Your task to perform on an android device: find snoozed emails in the gmail app Image 0: 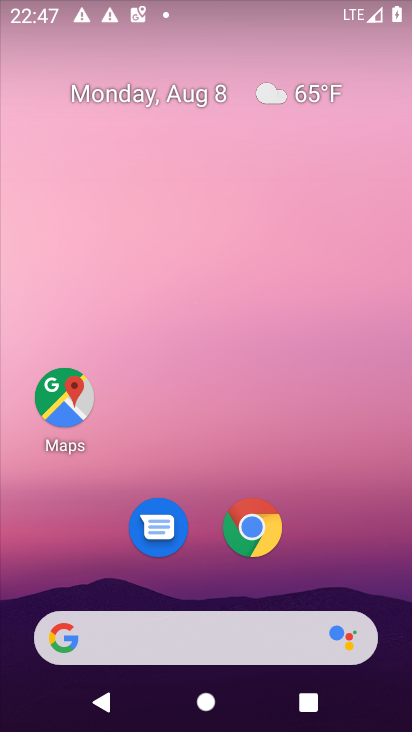
Step 0: drag from (394, 705) to (357, 208)
Your task to perform on an android device: find snoozed emails in the gmail app Image 1: 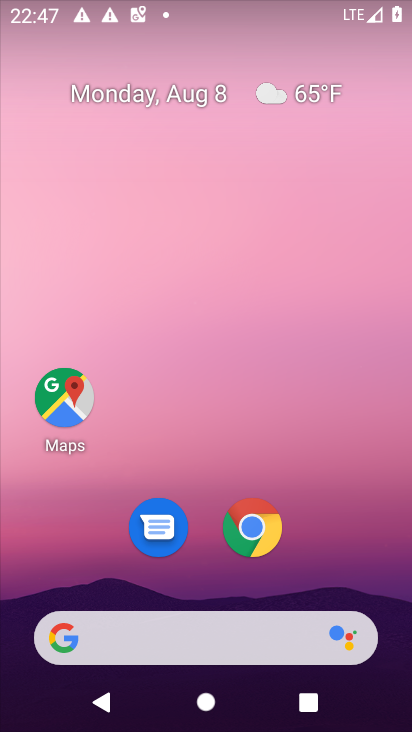
Step 1: drag from (400, 719) to (364, 152)
Your task to perform on an android device: find snoozed emails in the gmail app Image 2: 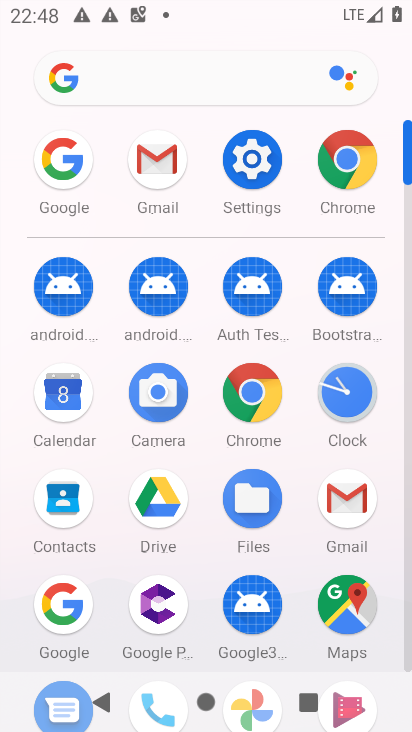
Step 2: click (348, 503)
Your task to perform on an android device: find snoozed emails in the gmail app Image 3: 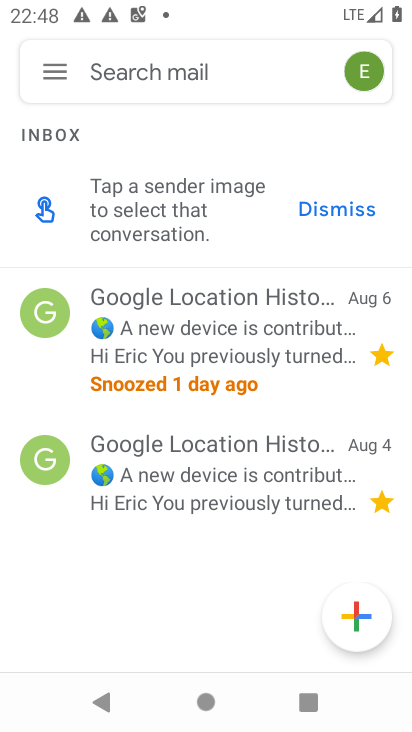
Step 3: click (48, 63)
Your task to perform on an android device: find snoozed emails in the gmail app Image 4: 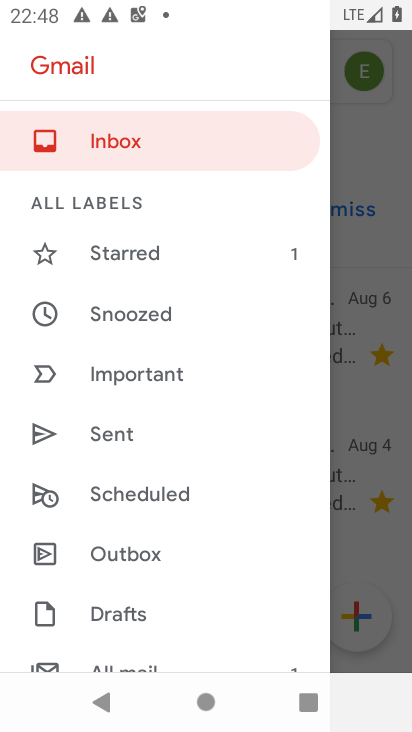
Step 4: click (130, 318)
Your task to perform on an android device: find snoozed emails in the gmail app Image 5: 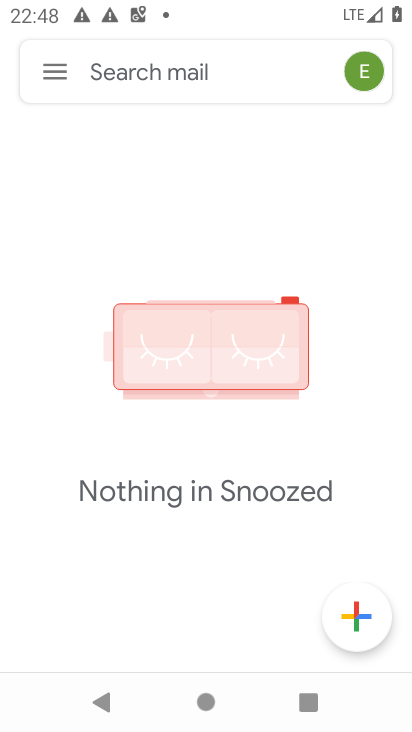
Step 5: task complete